Your task to perform on an android device: Open Youtube and go to the subscriptions tab Image 0: 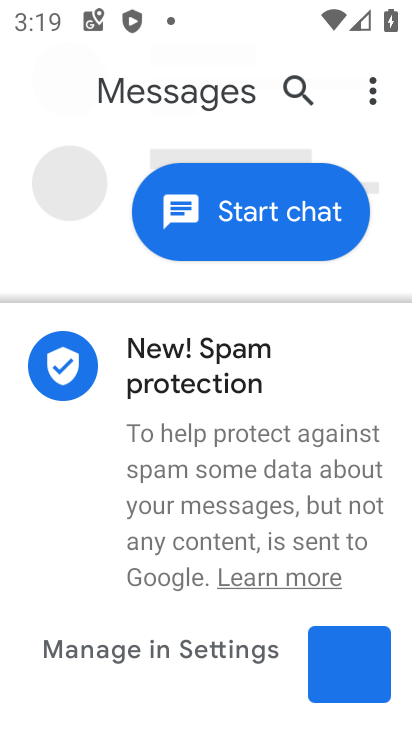
Step 0: press home button
Your task to perform on an android device: Open Youtube and go to the subscriptions tab Image 1: 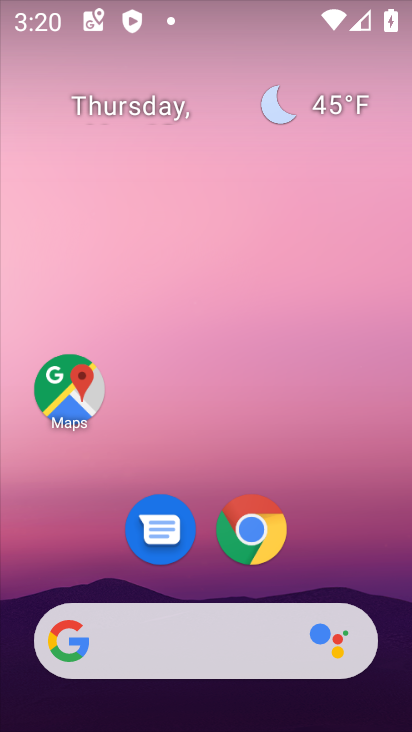
Step 1: drag from (341, 563) to (319, 130)
Your task to perform on an android device: Open Youtube and go to the subscriptions tab Image 2: 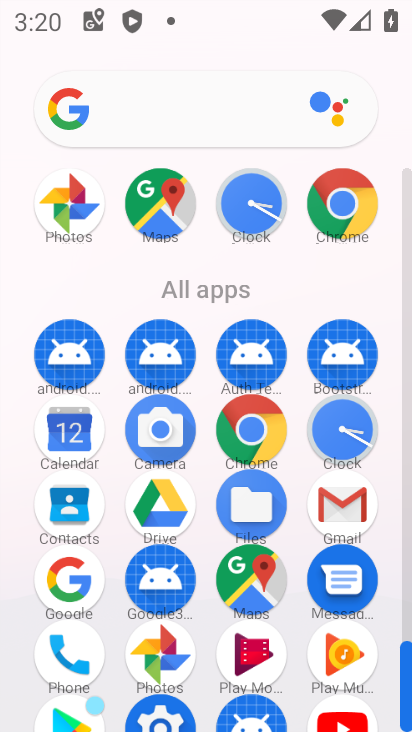
Step 2: drag from (383, 582) to (39, 19)
Your task to perform on an android device: Open Youtube and go to the subscriptions tab Image 3: 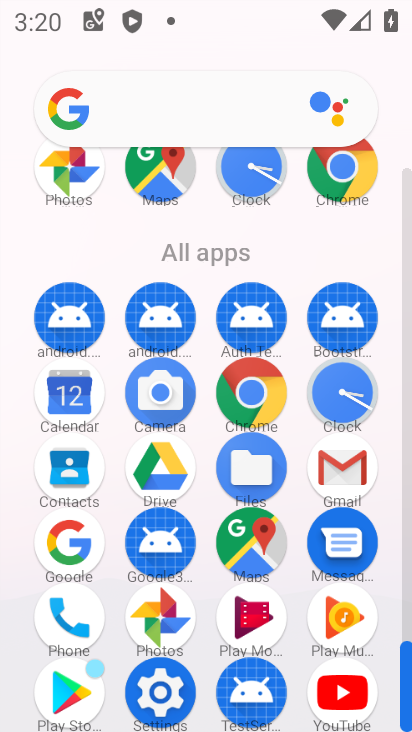
Step 3: click (335, 690)
Your task to perform on an android device: Open Youtube and go to the subscriptions tab Image 4: 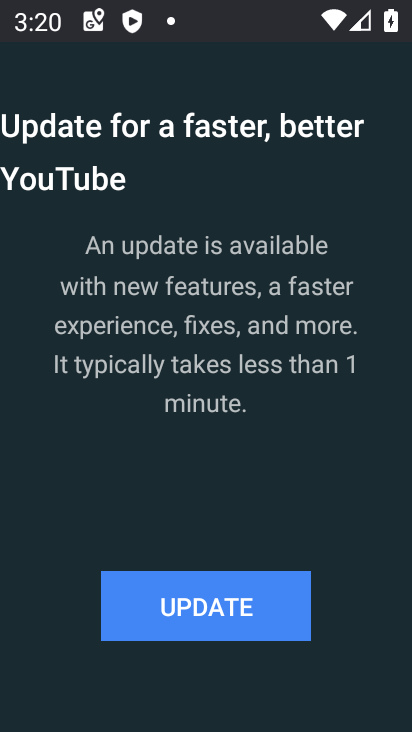
Step 4: click (199, 617)
Your task to perform on an android device: Open Youtube and go to the subscriptions tab Image 5: 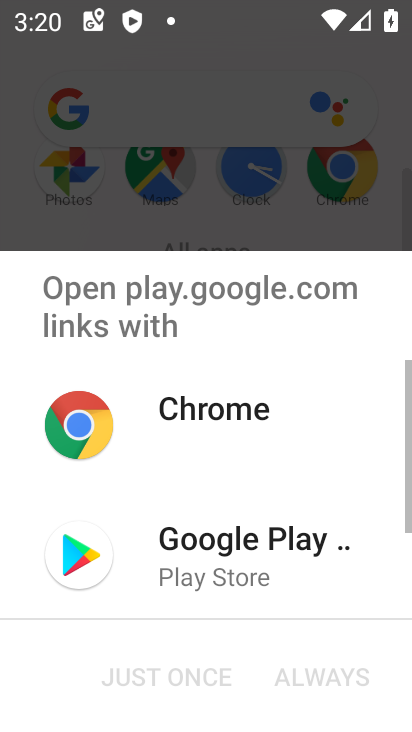
Step 5: click (171, 559)
Your task to perform on an android device: Open Youtube and go to the subscriptions tab Image 6: 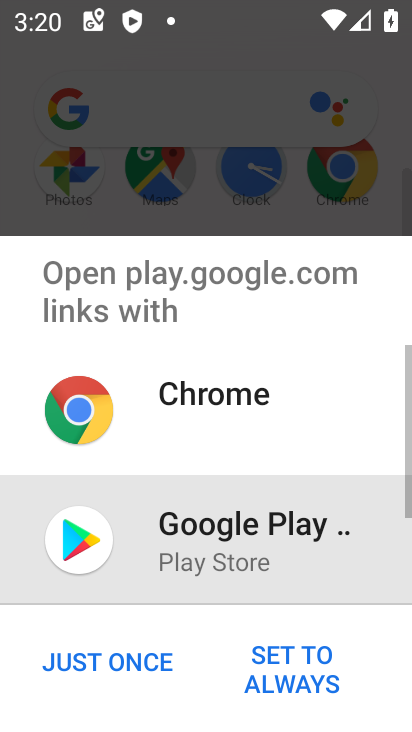
Step 6: click (131, 668)
Your task to perform on an android device: Open Youtube and go to the subscriptions tab Image 7: 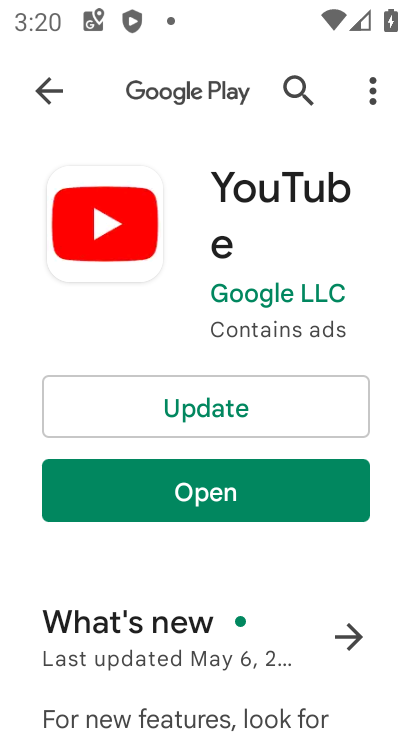
Step 7: click (263, 412)
Your task to perform on an android device: Open Youtube and go to the subscriptions tab Image 8: 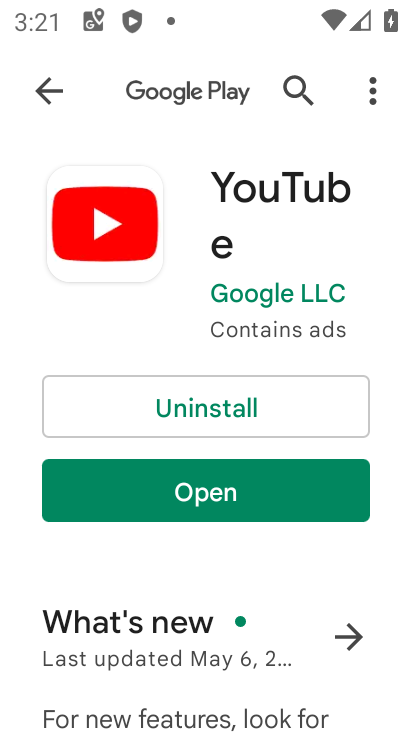
Step 8: click (253, 494)
Your task to perform on an android device: Open Youtube and go to the subscriptions tab Image 9: 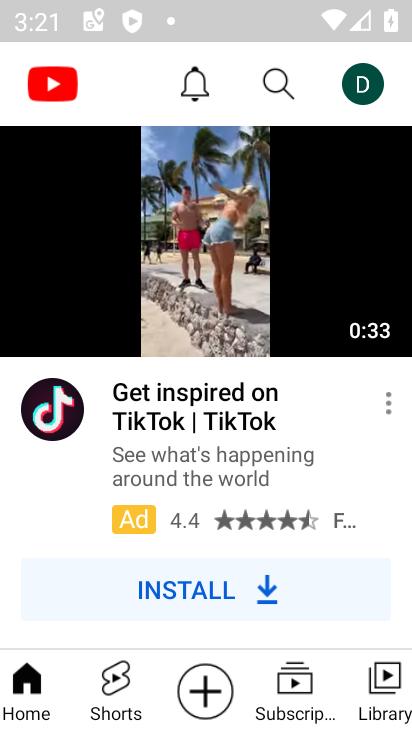
Step 9: click (296, 689)
Your task to perform on an android device: Open Youtube and go to the subscriptions tab Image 10: 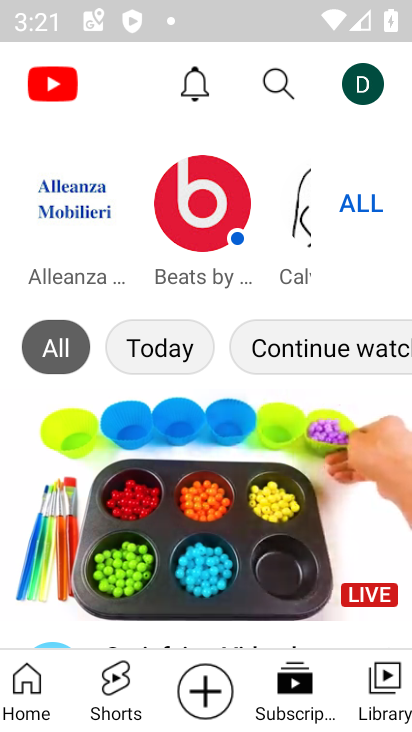
Step 10: task complete